Your task to perform on an android device: open app "The Home Depot" (install if not already installed), go to login, and select forgot password Image 0: 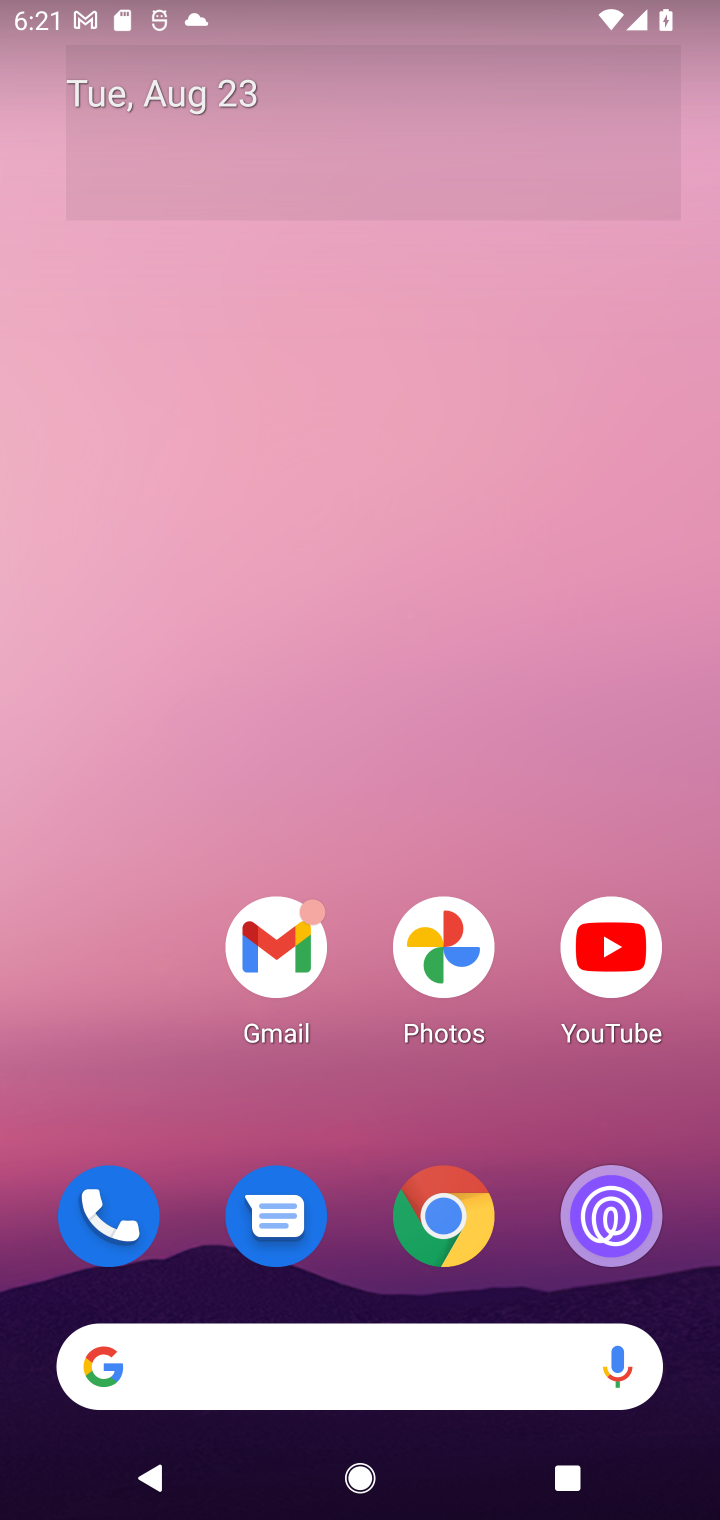
Step 0: drag from (329, 1223) to (255, 289)
Your task to perform on an android device: open app "The Home Depot" (install if not already installed), go to login, and select forgot password Image 1: 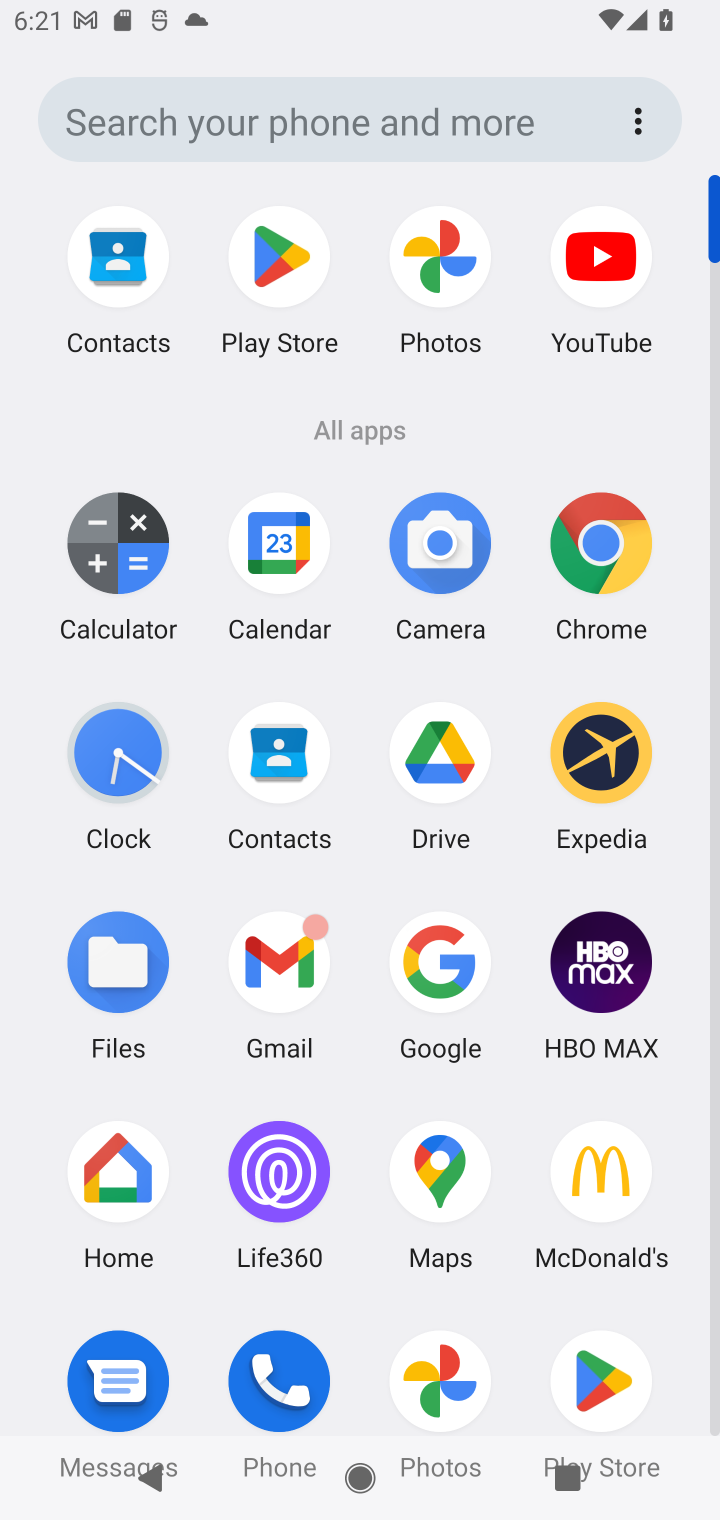
Step 1: click (615, 1390)
Your task to perform on an android device: open app "The Home Depot" (install if not already installed), go to login, and select forgot password Image 2: 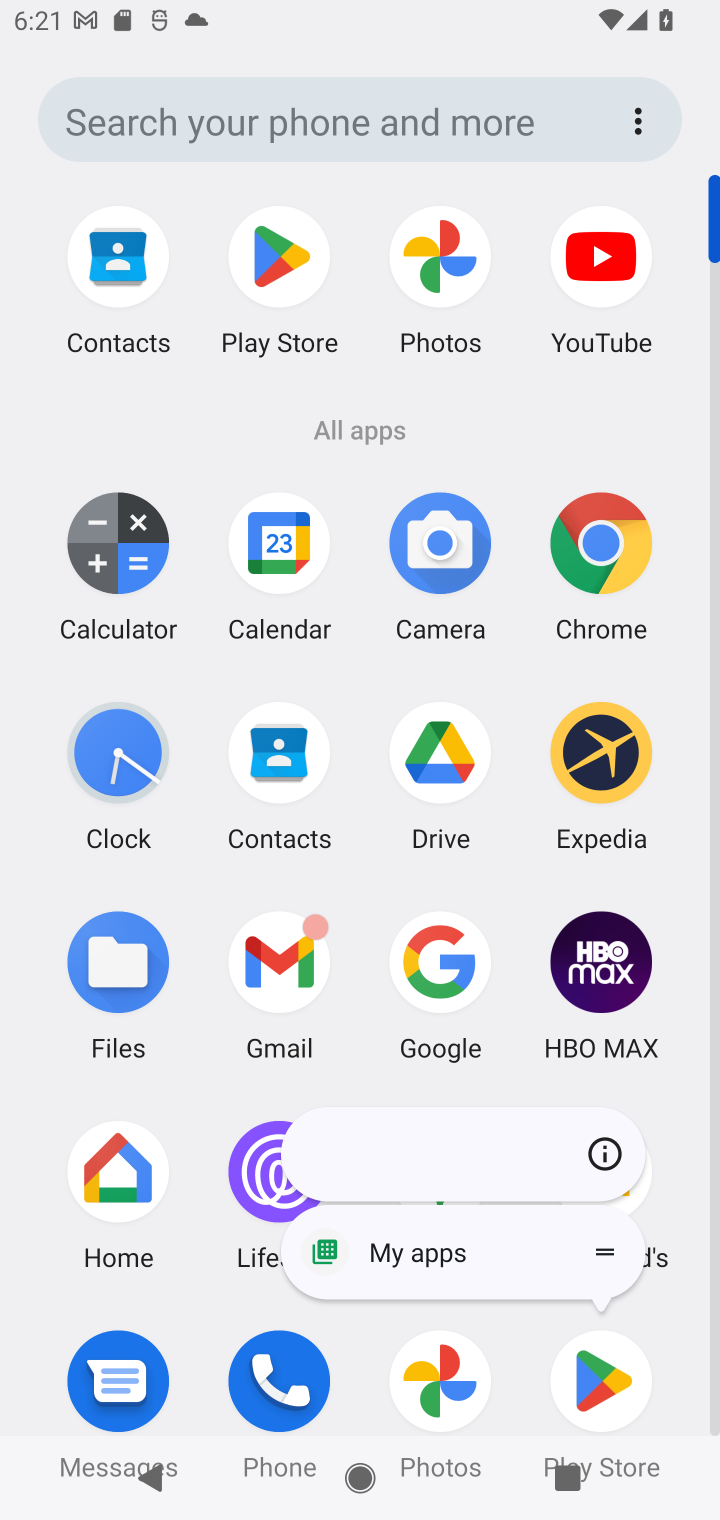
Step 2: click (615, 1390)
Your task to perform on an android device: open app "The Home Depot" (install if not already installed), go to login, and select forgot password Image 3: 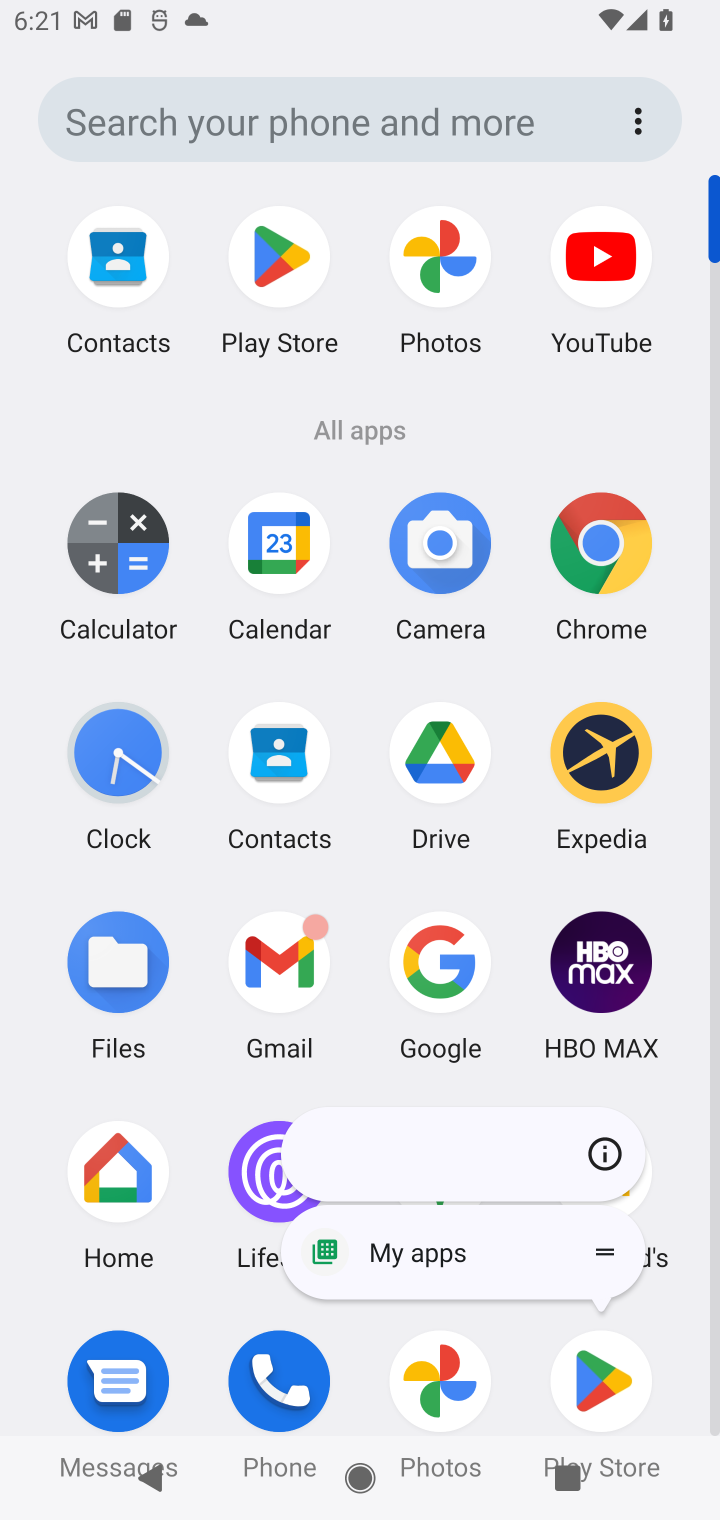
Step 3: click (279, 288)
Your task to perform on an android device: open app "The Home Depot" (install if not already installed), go to login, and select forgot password Image 4: 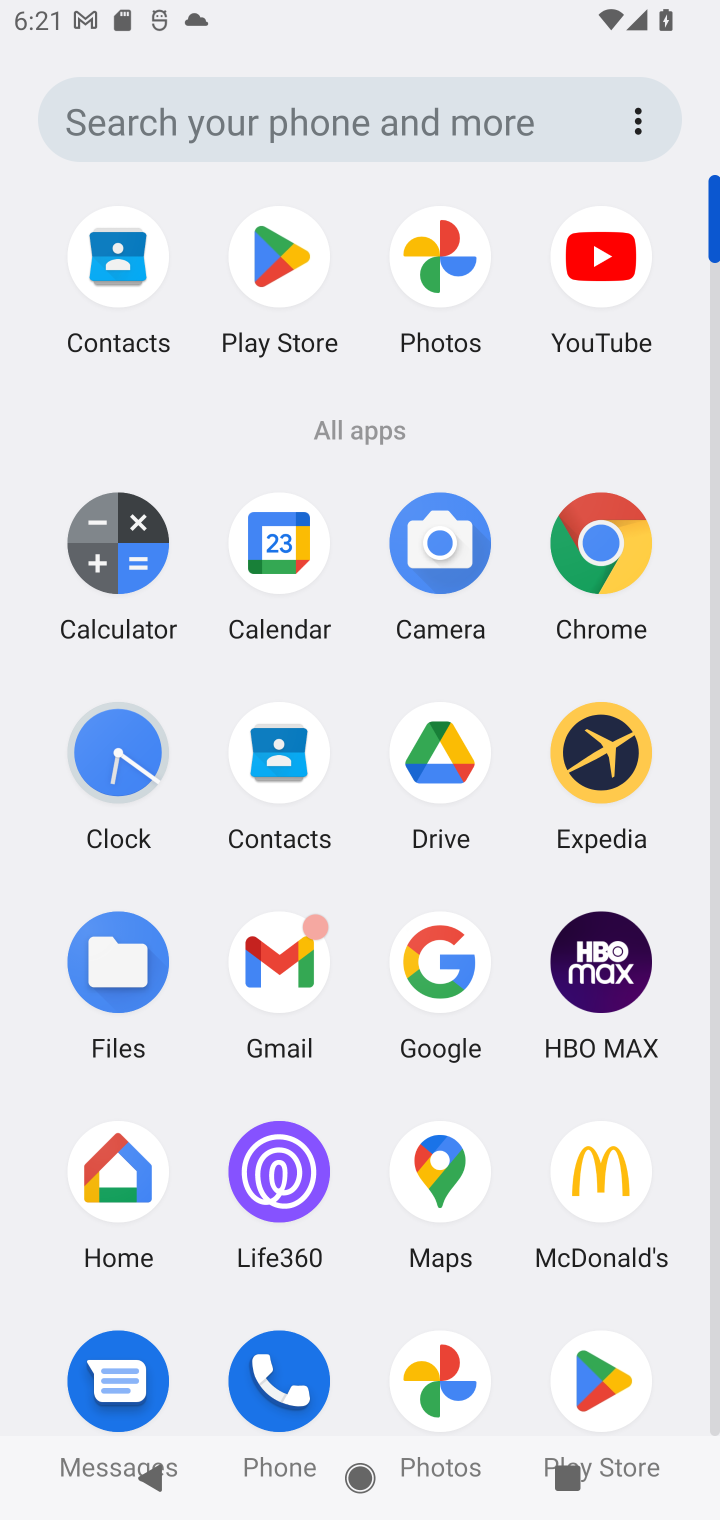
Step 4: click (242, 310)
Your task to perform on an android device: open app "The Home Depot" (install if not already installed), go to login, and select forgot password Image 5: 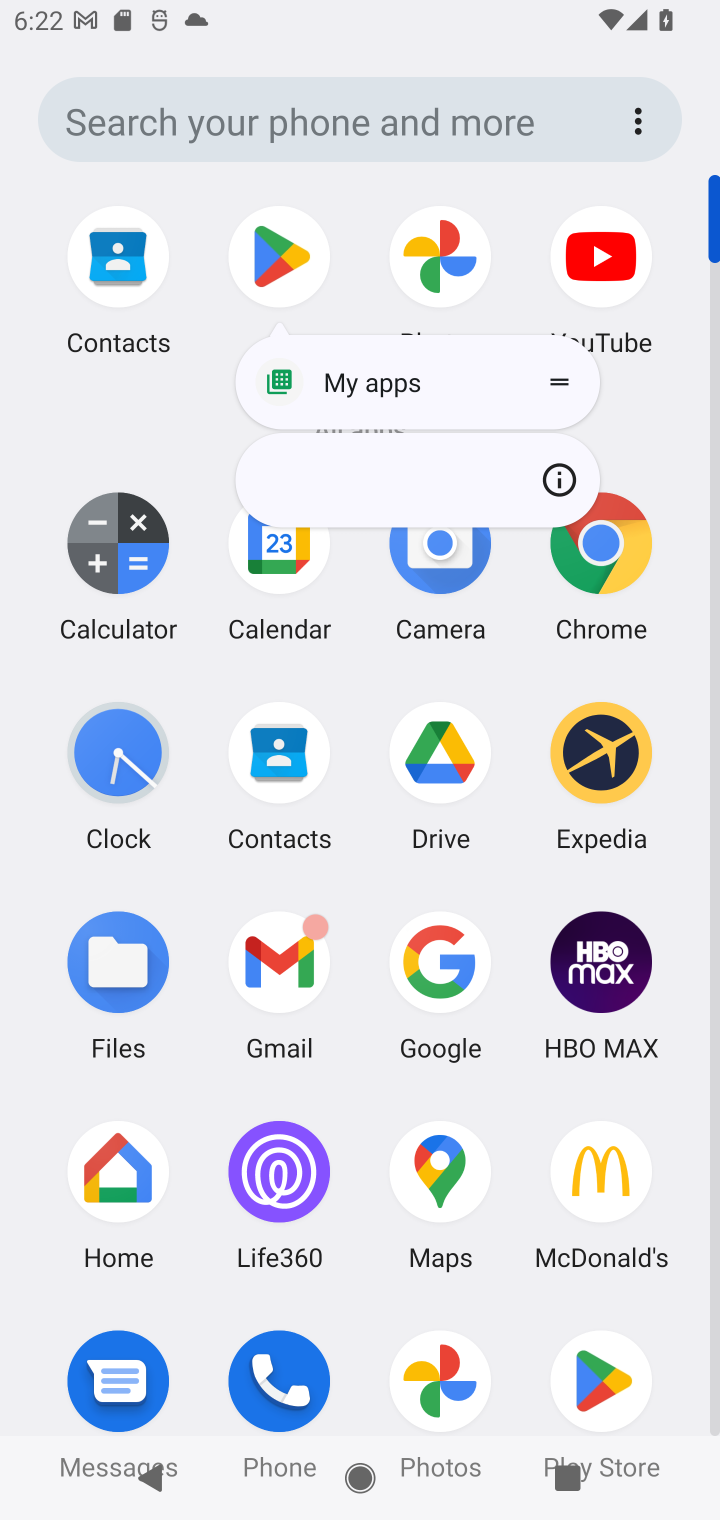
Step 5: click (294, 275)
Your task to perform on an android device: open app "The Home Depot" (install if not already installed), go to login, and select forgot password Image 6: 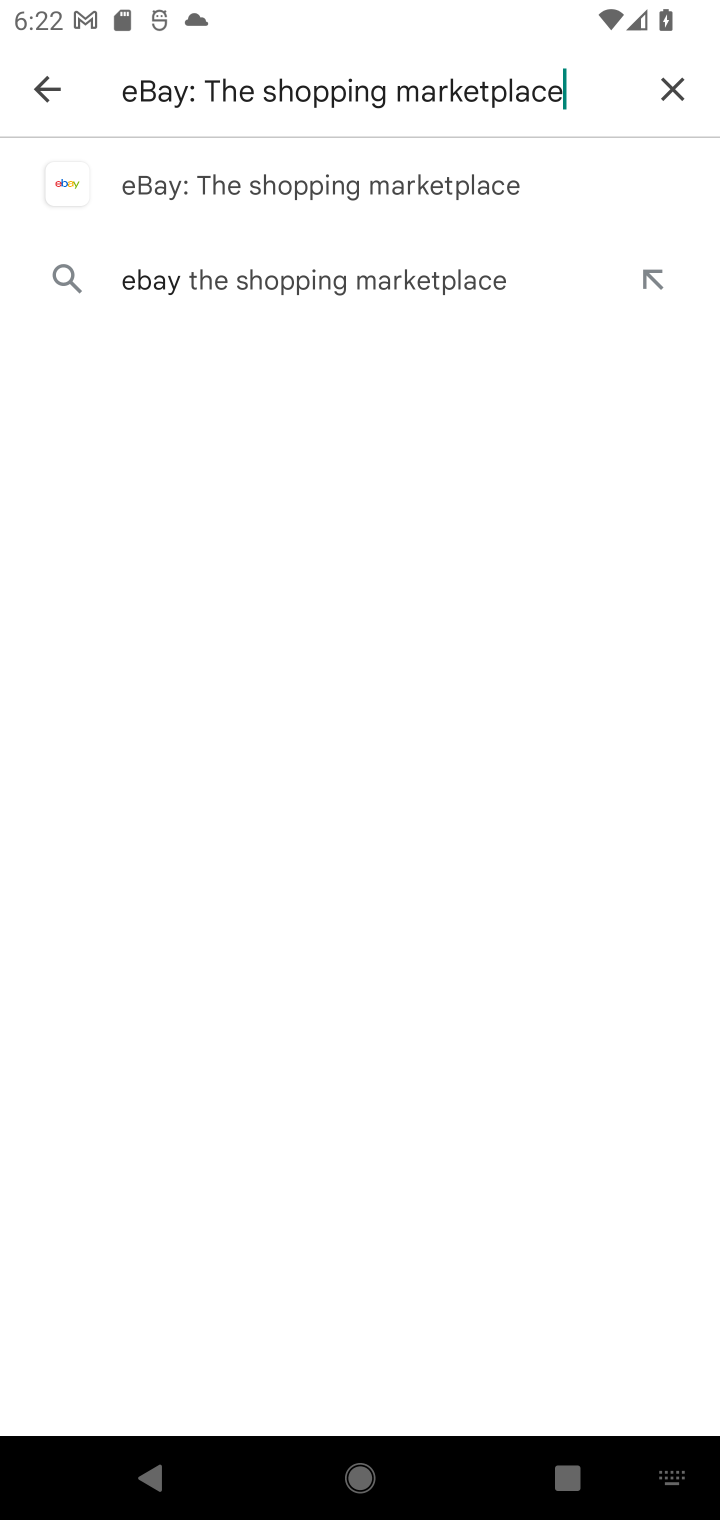
Step 6: click (669, 90)
Your task to perform on an android device: open app "The Home Depot" (install if not already installed), go to login, and select forgot password Image 7: 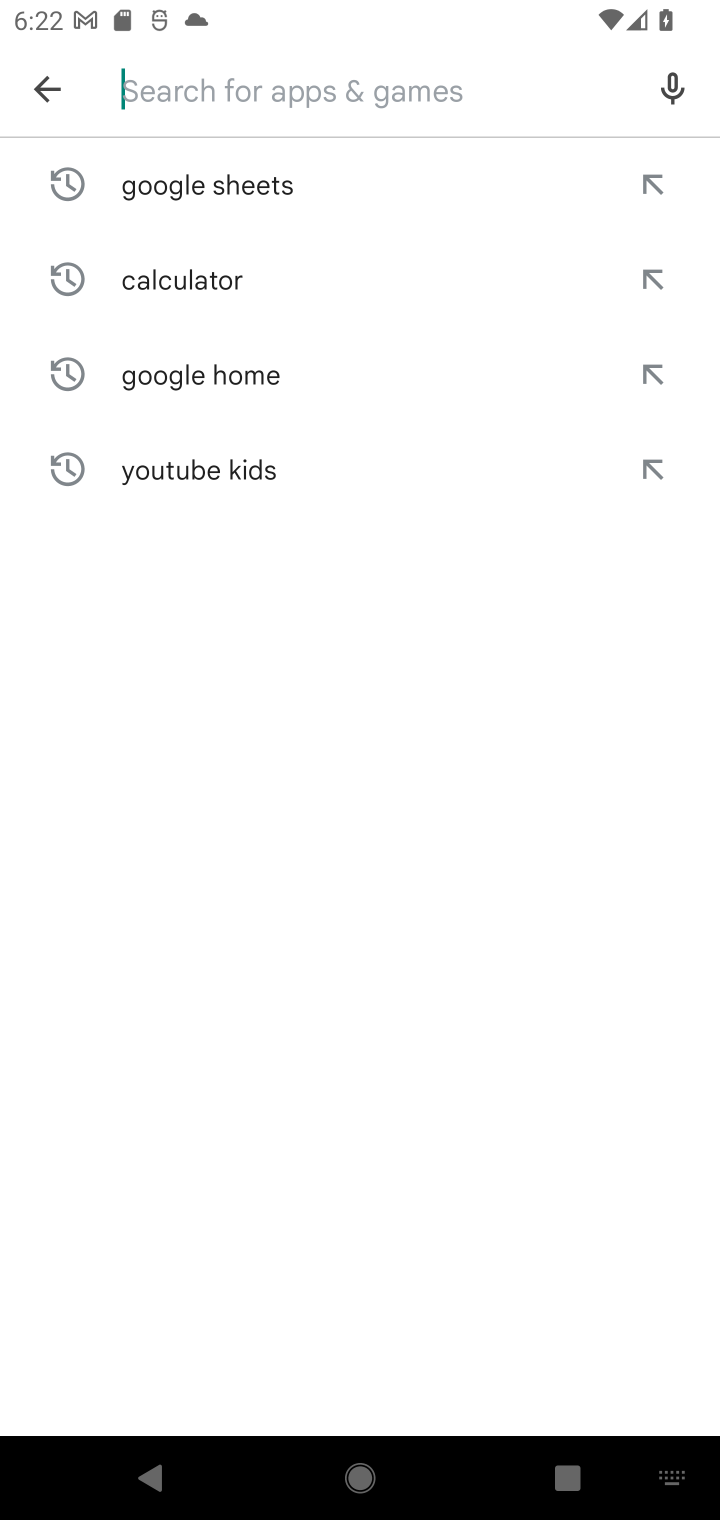
Step 7: type "The Home Depo"
Your task to perform on an android device: open app "The Home Depot" (install if not already installed), go to login, and select forgot password Image 8: 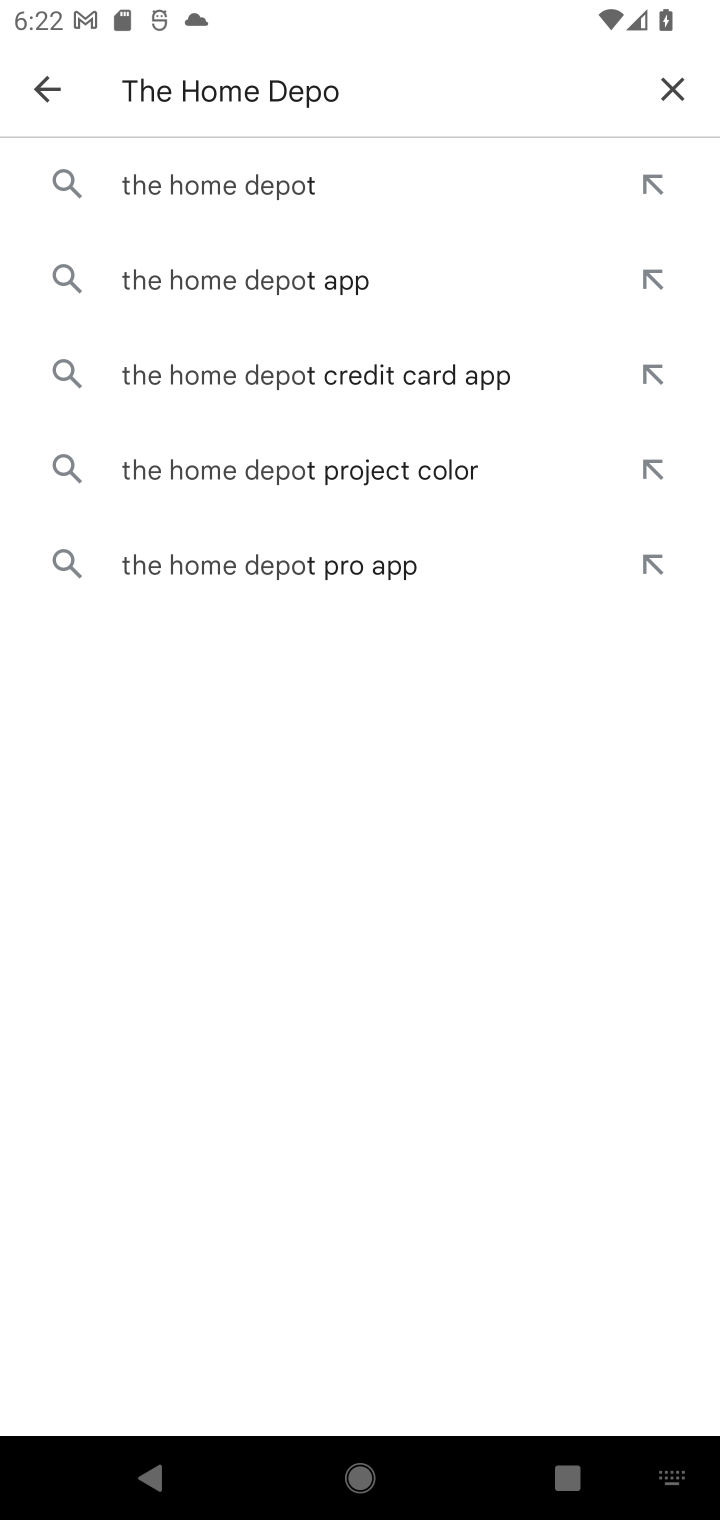
Step 8: click (249, 191)
Your task to perform on an android device: open app "The Home Depot" (install if not already installed), go to login, and select forgot password Image 9: 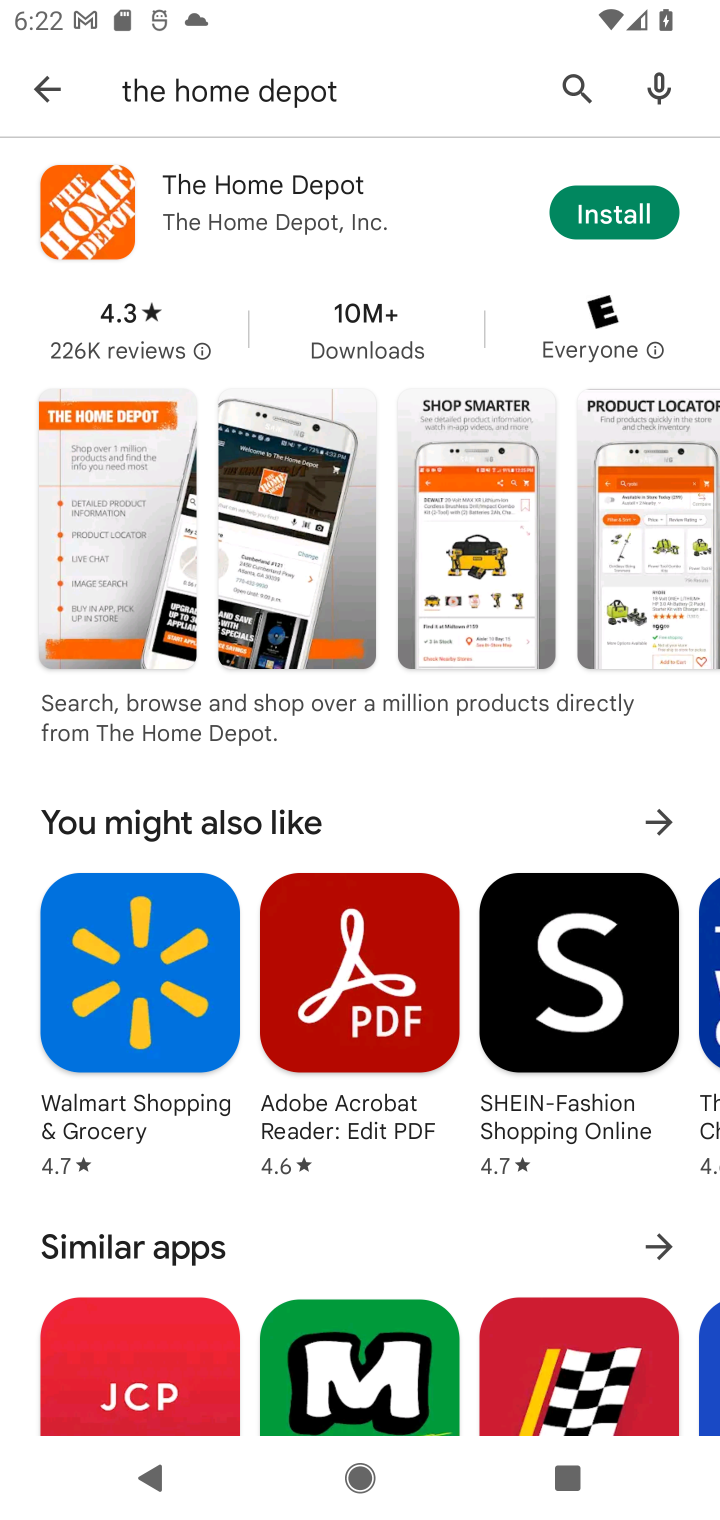
Step 9: click (606, 204)
Your task to perform on an android device: open app "The Home Depot" (install if not already installed), go to login, and select forgot password Image 10: 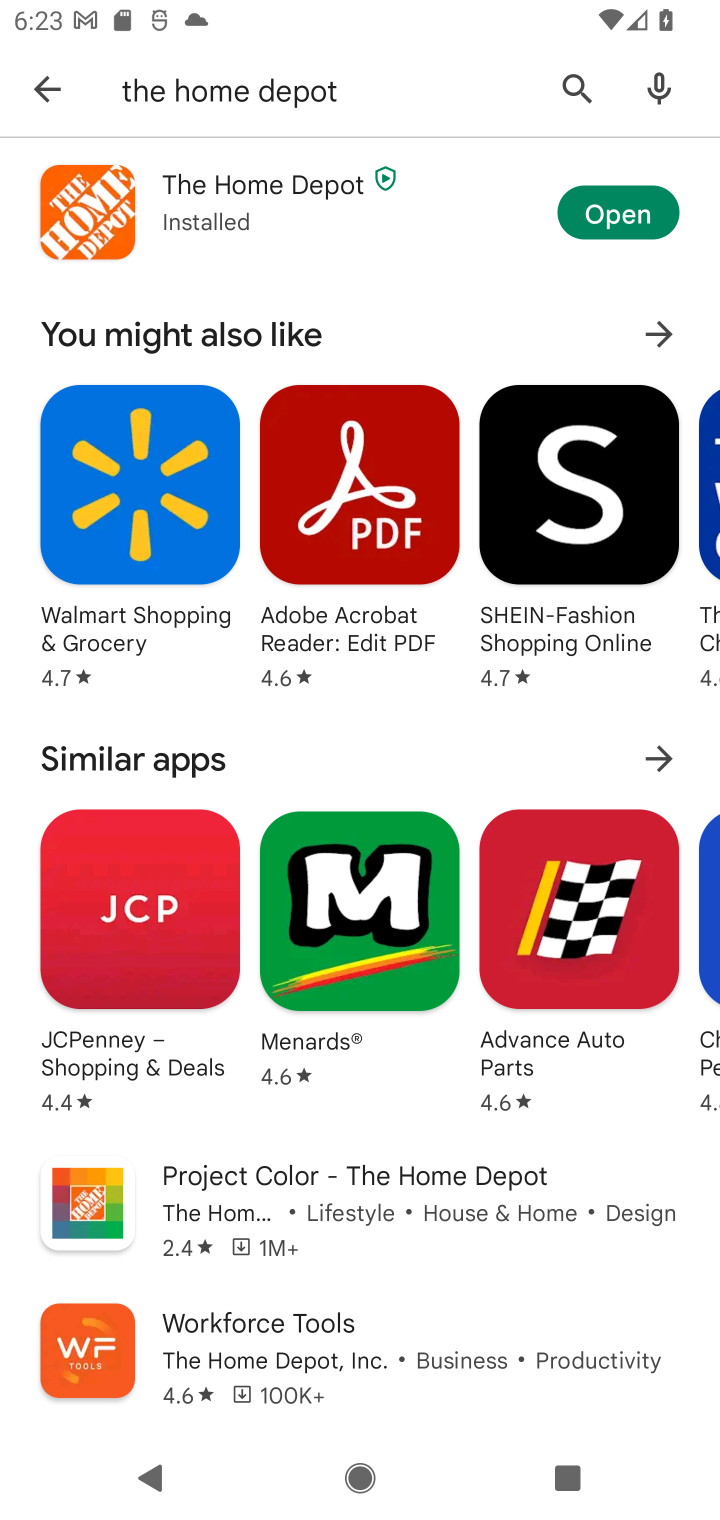
Step 10: click (622, 239)
Your task to perform on an android device: open app "The Home Depot" (install if not already installed), go to login, and select forgot password Image 11: 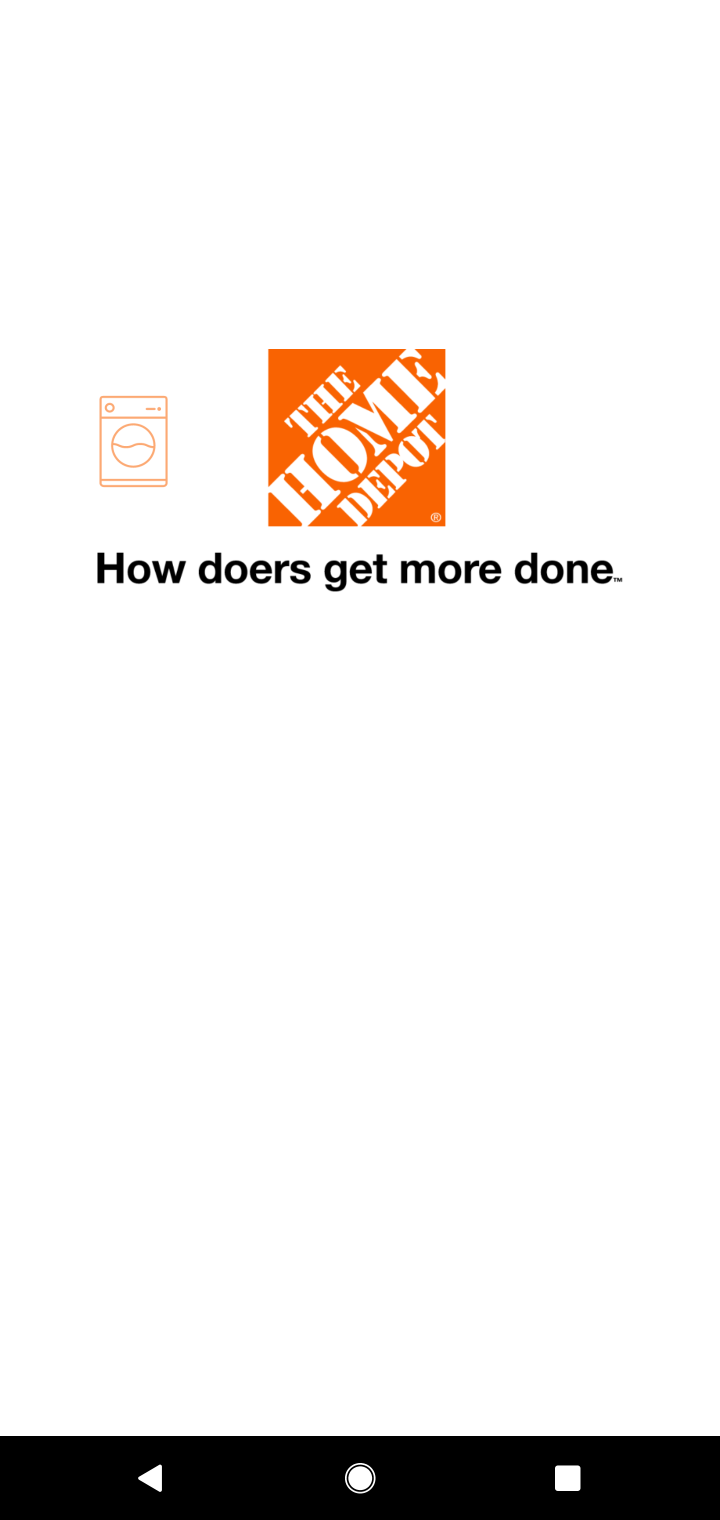
Step 11: task complete